Your task to perform on an android device: Open accessibility settings Image 0: 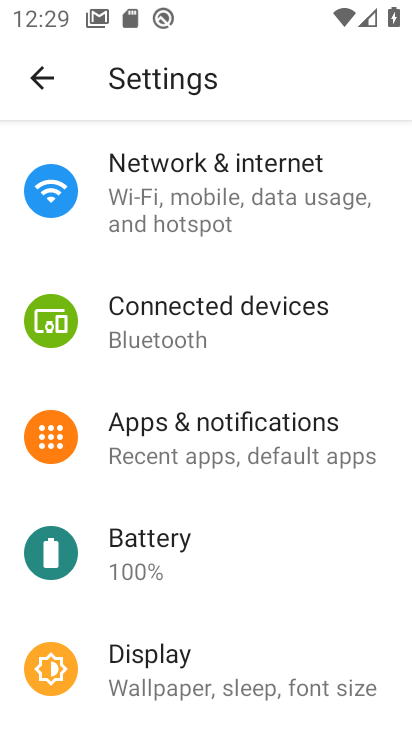
Step 0: drag from (154, 687) to (102, 148)
Your task to perform on an android device: Open accessibility settings Image 1: 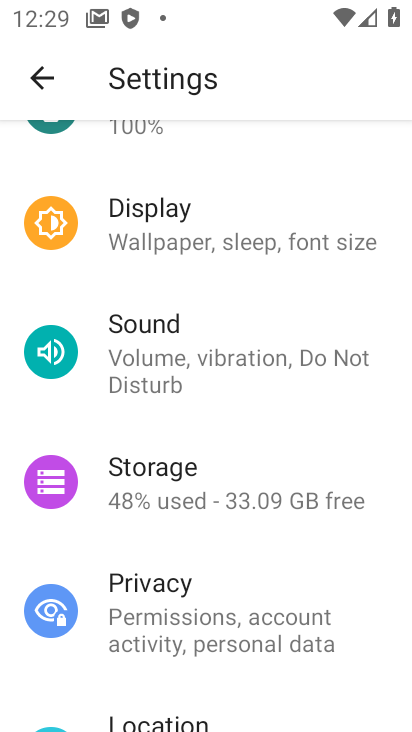
Step 1: drag from (195, 670) to (124, 19)
Your task to perform on an android device: Open accessibility settings Image 2: 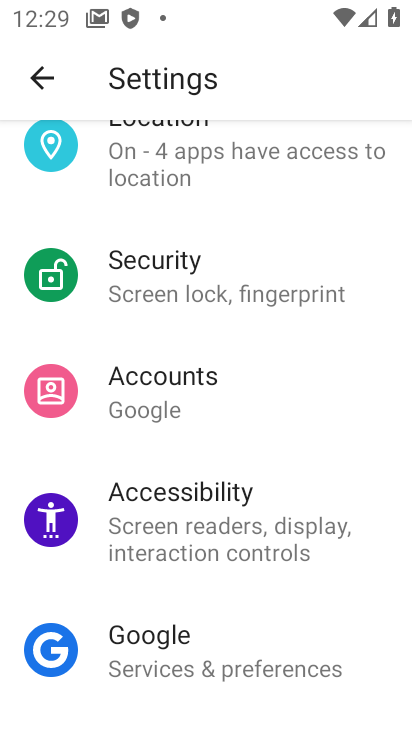
Step 2: click (166, 509)
Your task to perform on an android device: Open accessibility settings Image 3: 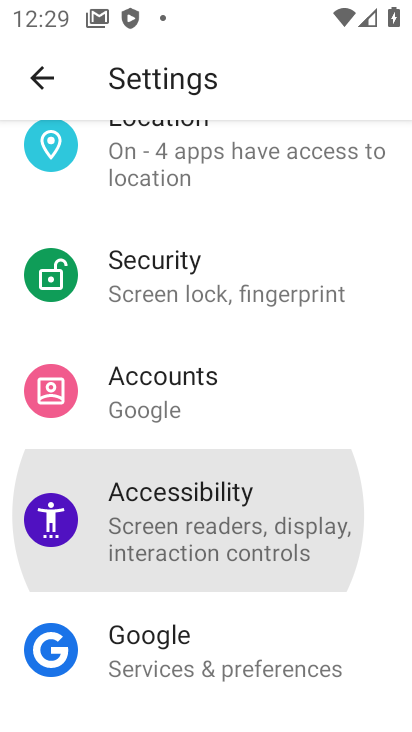
Step 3: click (166, 509)
Your task to perform on an android device: Open accessibility settings Image 4: 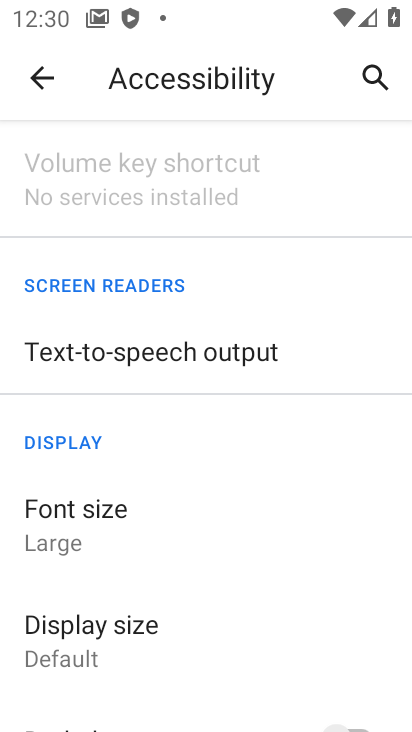
Step 4: task complete